Your task to perform on an android device: Open Google Chrome Image 0: 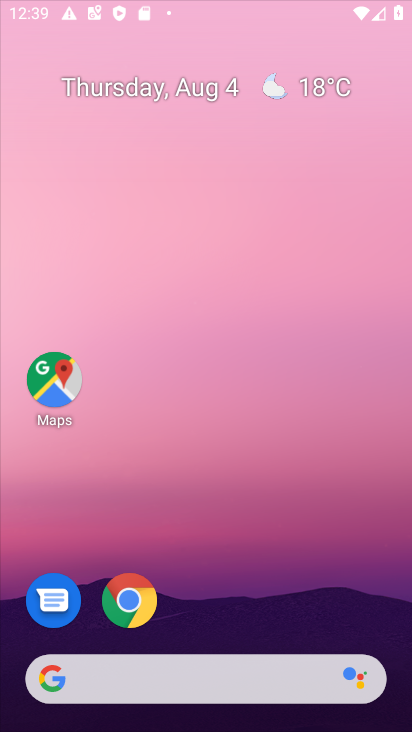
Step 0: press home button
Your task to perform on an android device: Open Google Chrome Image 1: 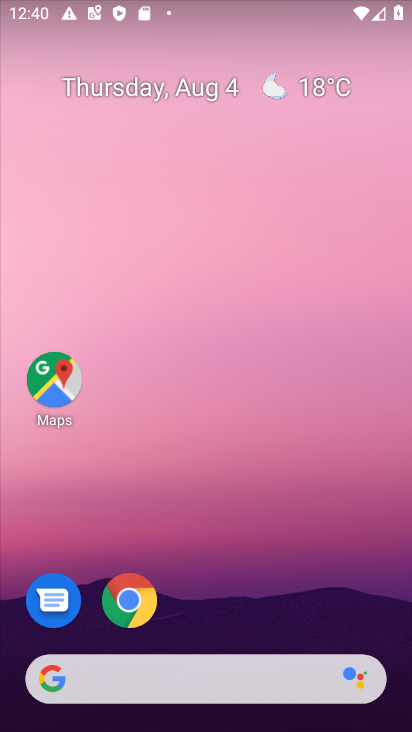
Step 1: click (127, 602)
Your task to perform on an android device: Open Google Chrome Image 2: 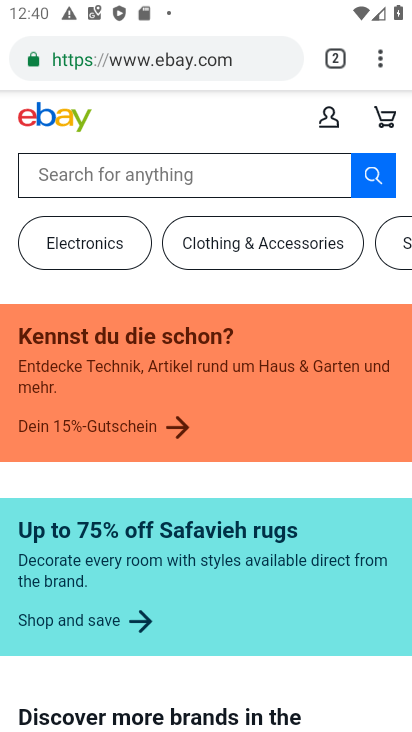
Step 2: task complete